Your task to perform on an android device: Go to settings Image 0: 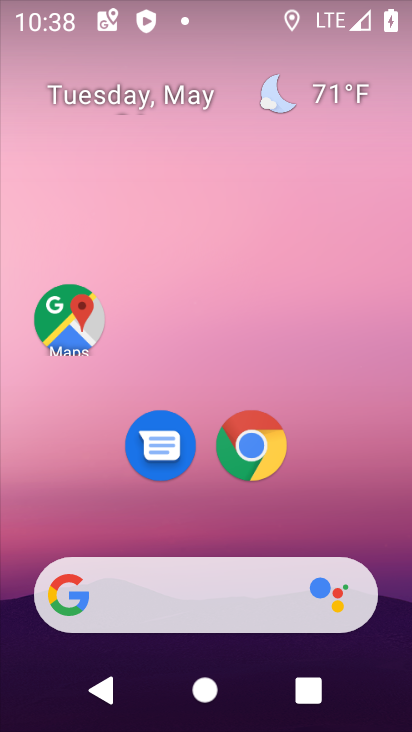
Step 0: drag from (336, 508) to (316, 169)
Your task to perform on an android device: Go to settings Image 1: 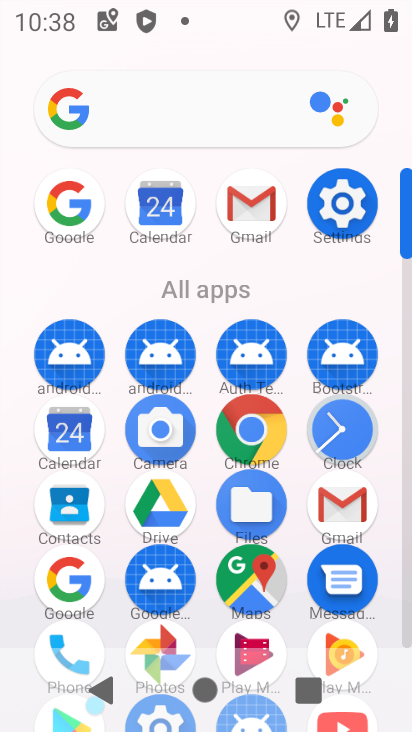
Step 1: click (342, 201)
Your task to perform on an android device: Go to settings Image 2: 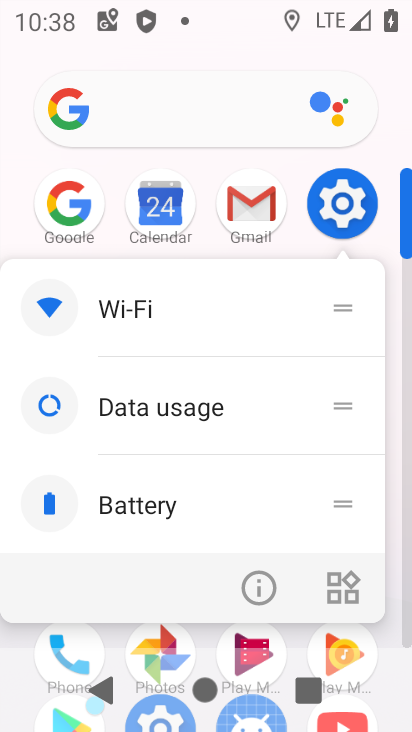
Step 2: click (342, 201)
Your task to perform on an android device: Go to settings Image 3: 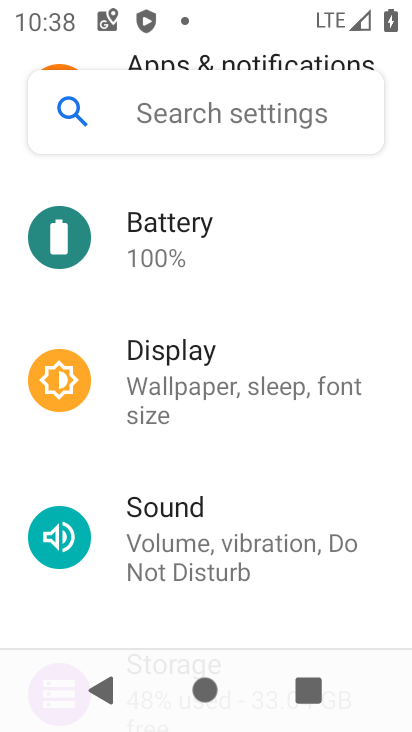
Step 3: task complete